Your task to perform on an android device: Open my contact list Image 0: 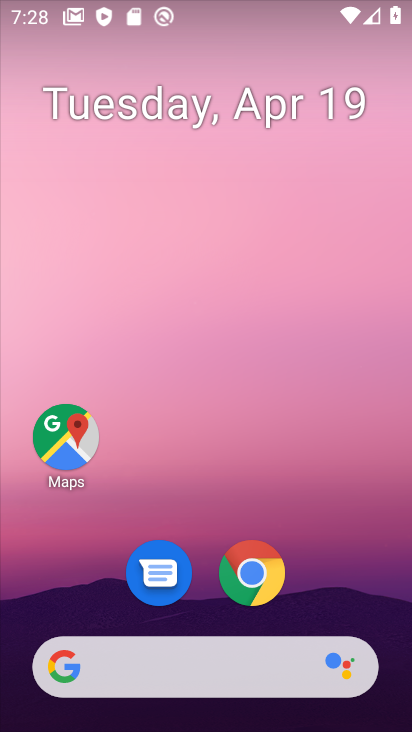
Step 0: click (361, 190)
Your task to perform on an android device: Open my contact list Image 1: 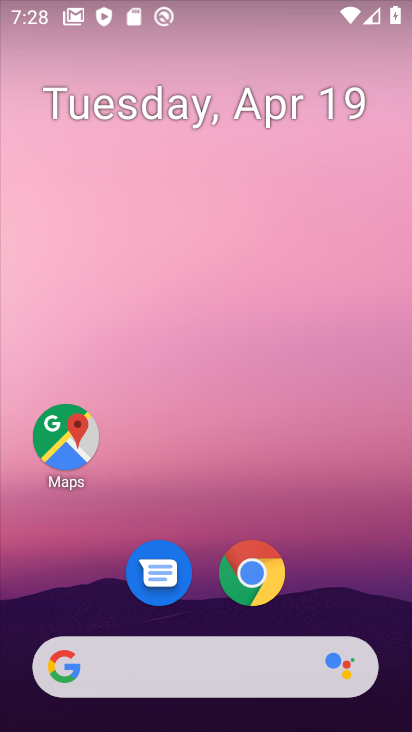
Step 1: drag from (364, 559) to (332, 231)
Your task to perform on an android device: Open my contact list Image 2: 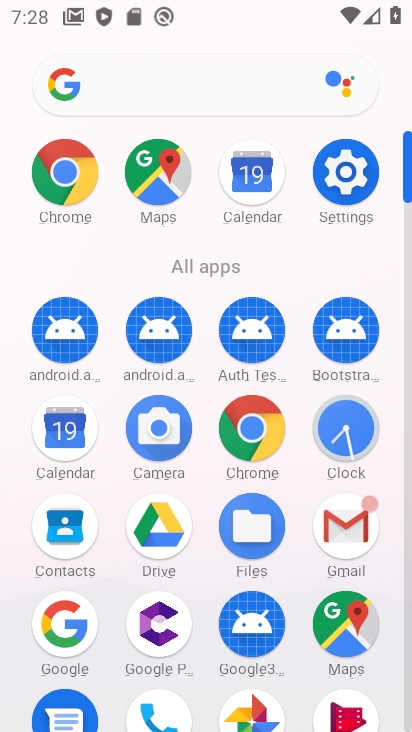
Step 2: click (61, 528)
Your task to perform on an android device: Open my contact list Image 3: 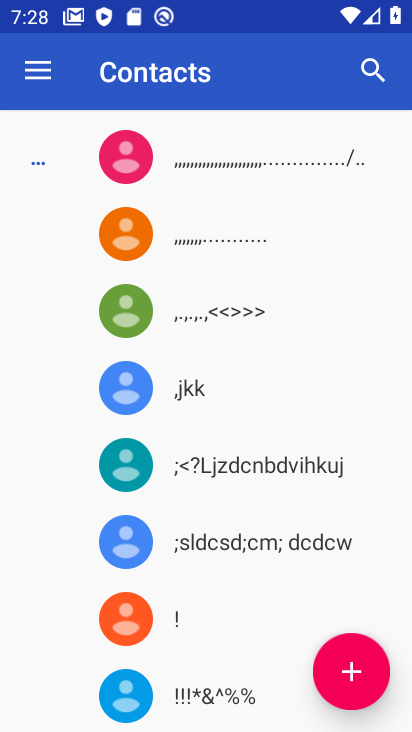
Step 3: task complete